Your task to perform on an android device: change text size in settings app Image 0: 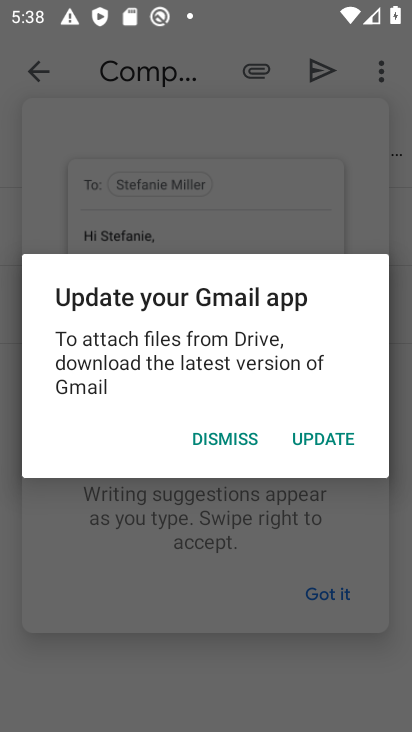
Step 0: press home button
Your task to perform on an android device: change text size in settings app Image 1: 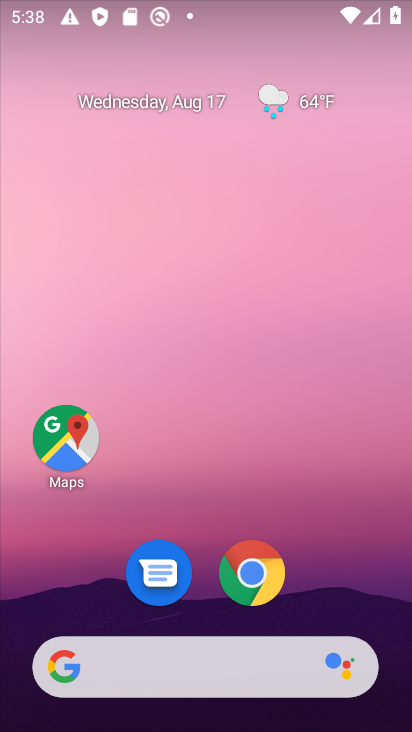
Step 1: drag from (235, 561) to (343, 21)
Your task to perform on an android device: change text size in settings app Image 2: 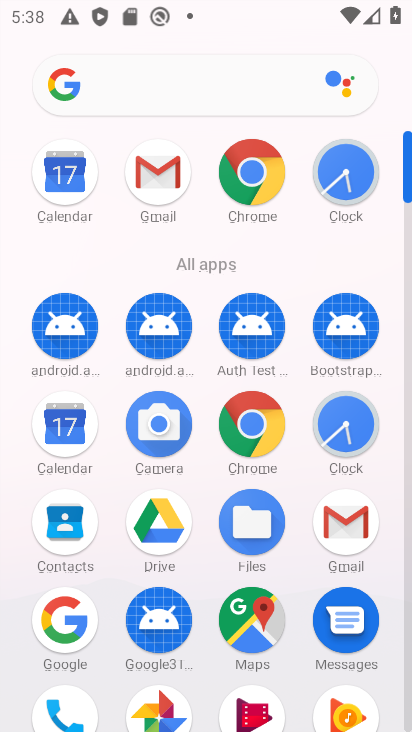
Step 2: drag from (385, 648) to (343, 248)
Your task to perform on an android device: change text size in settings app Image 3: 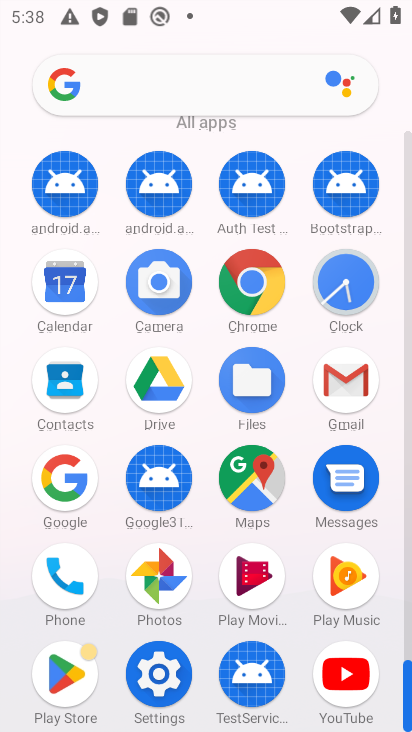
Step 3: click (164, 677)
Your task to perform on an android device: change text size in settings app Image 4: 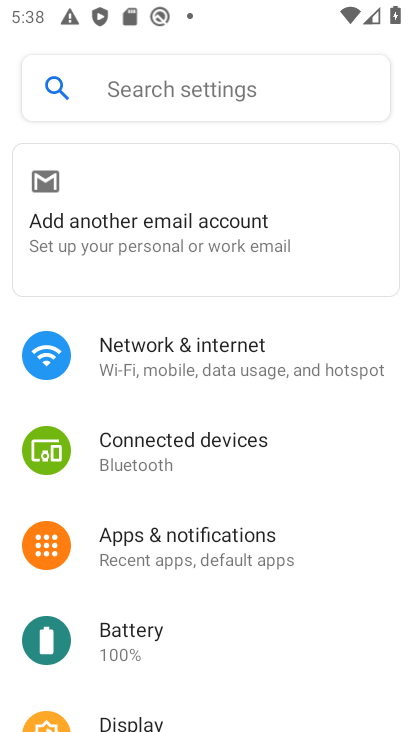
Step 4: drag from (219, 568) to (276, 291)
Your task to perform on an android device: change text size in settings app Image 5: 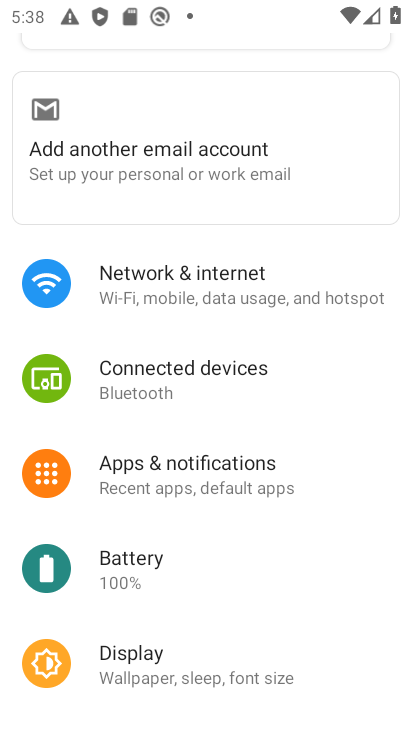
Step 5: drag from (232, 646) to (315, 266)
Your task to perform on an android device: change text size in settings app Image 6: 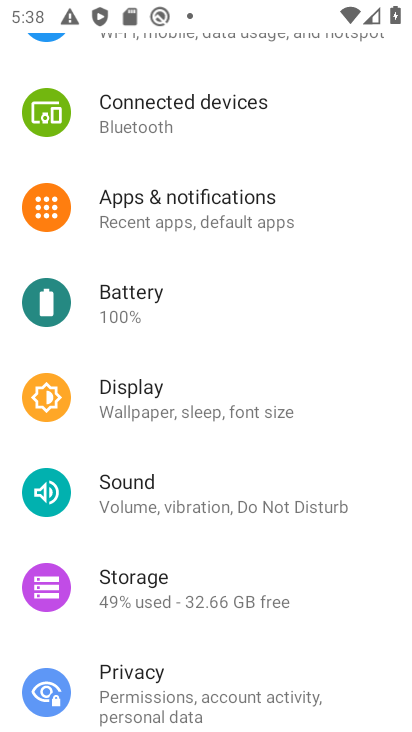
Step 6: click (169, 423)
Your task to perform on an android device: change text size in settings app Image 7: 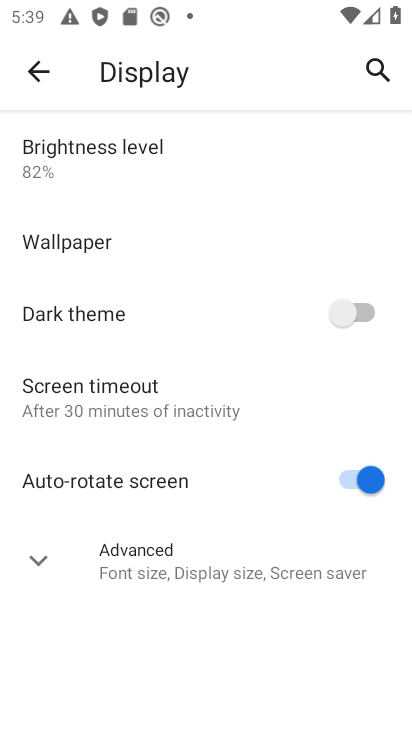
Step 7: click (151, 565)
Your task to perform on an android device: change text size in settings app Image 8: 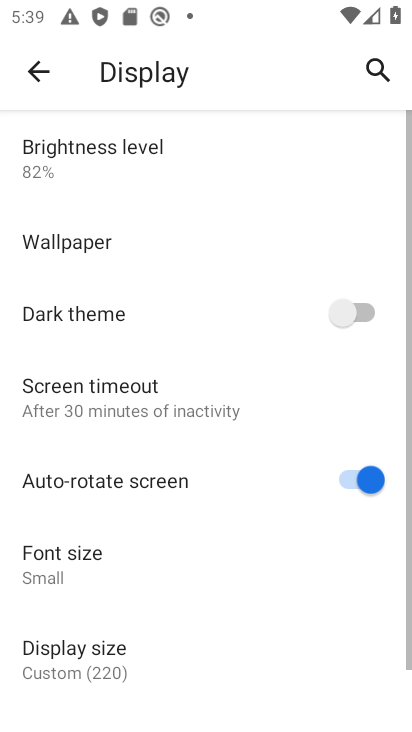
Step 8: drag from (137, 588) to (106, 294)
Your task to perform on an android device: change text size in settings app Image 9: 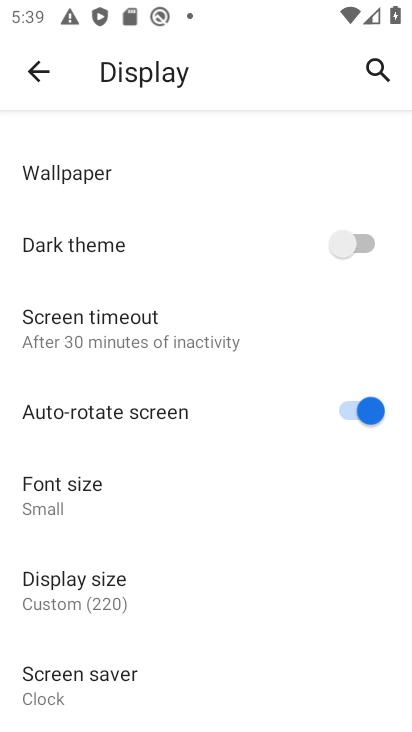
Step 9: click (50, 494)
Your task to perform on an android device: change text size in settings app Image 10: 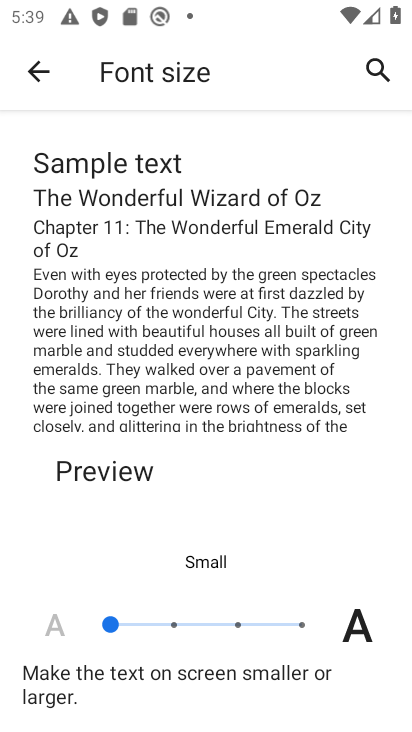
Step 10: click (201, 629)
Your task to perform on an android device: change text size in settings app Image 11: 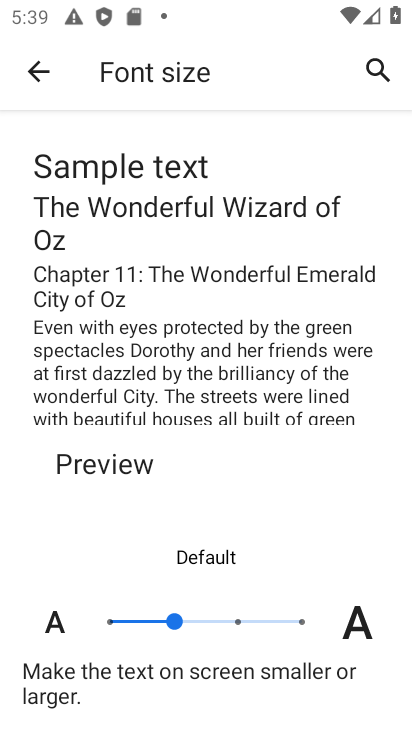
Step 11: task complete